Your task to perform on an android device: open app "Google Keep" (install if not already installed) Image 0: 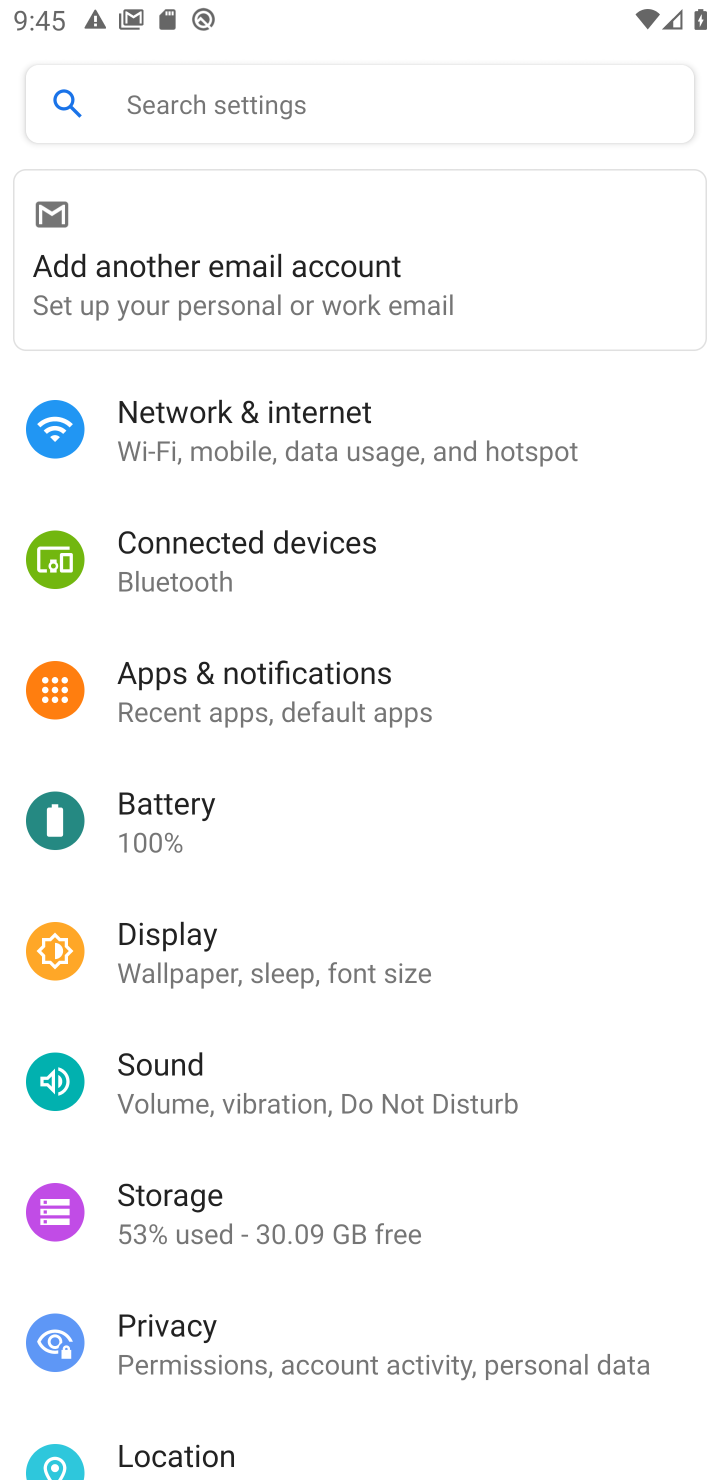
Step 0: press home button
Your task to perform on an android device: open app "Google Keep" (install if not already installed) Image 1: 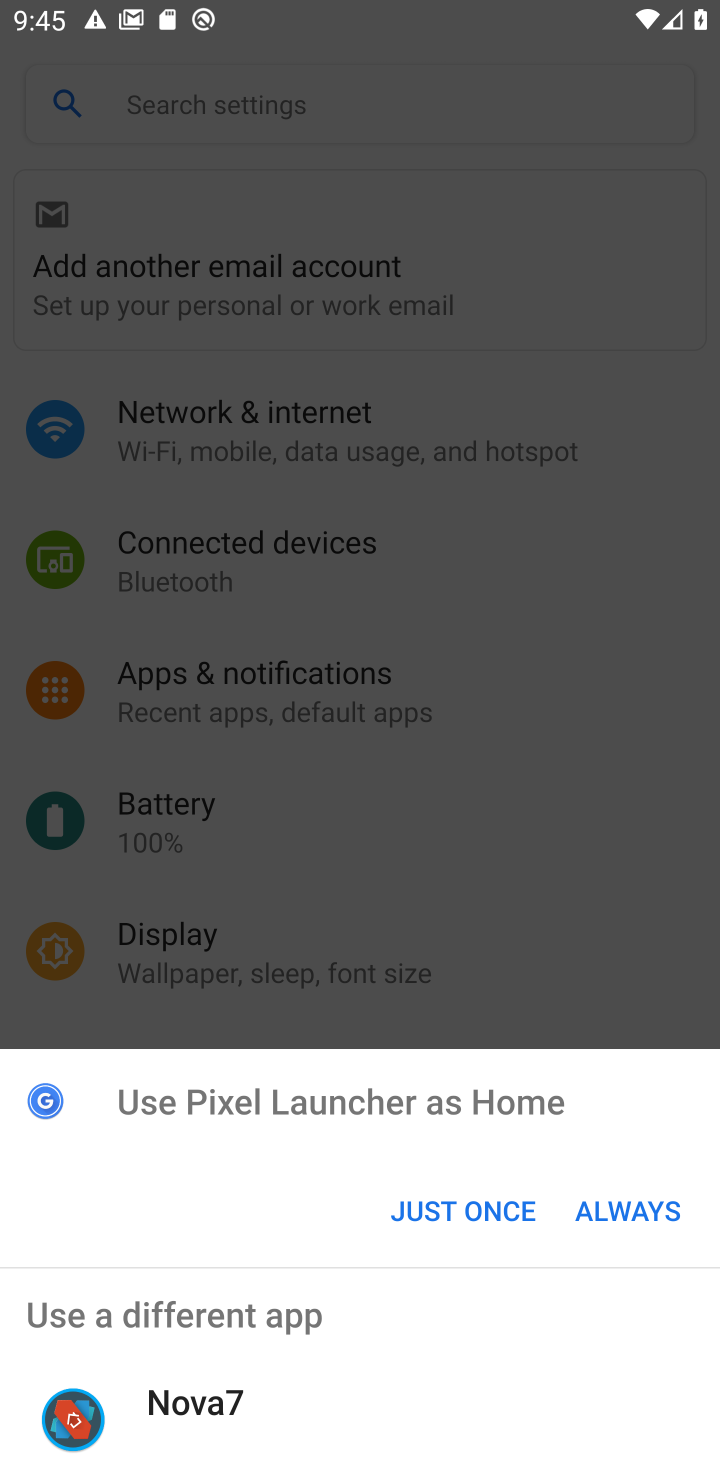
Step 1: click (479, 1212)
Your task to perform on an android device: open app "Google Keep" (install if not already installed) Image 2: 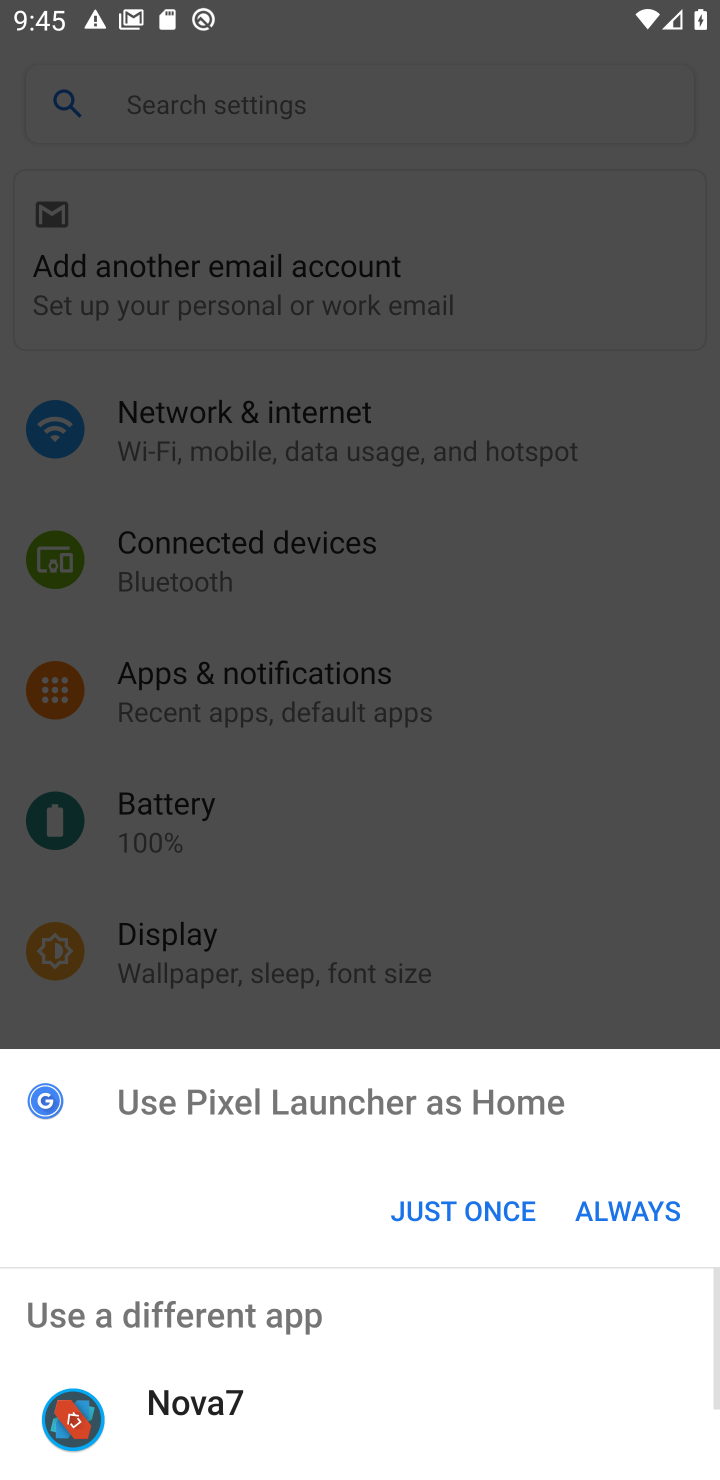
Step 2: press home button
Your task to perform on an android device: open app "Google Keep" (install if not already installed) Image 3: 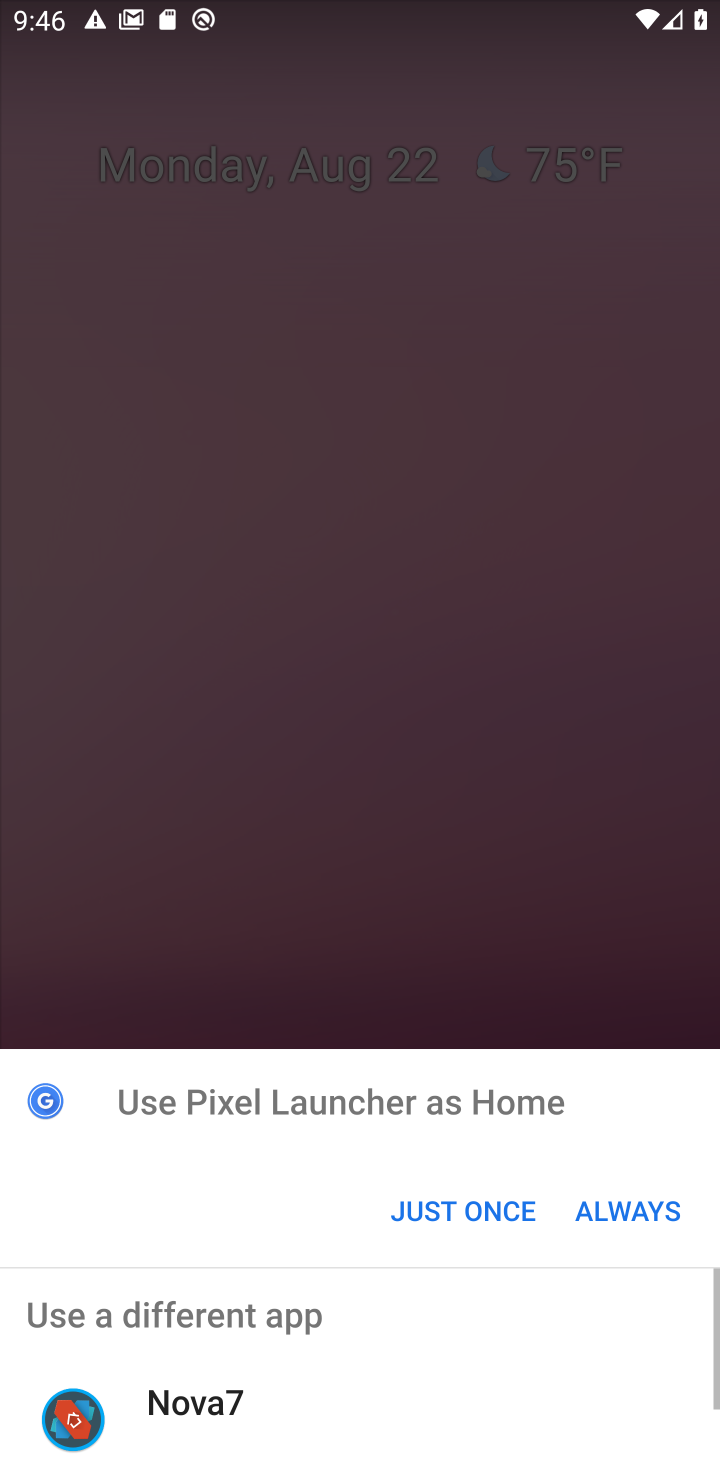
Step 3: click (644, 1204)
Your task to perform on an android device: open app "Google Keep" (install if not already installed) Image 4: 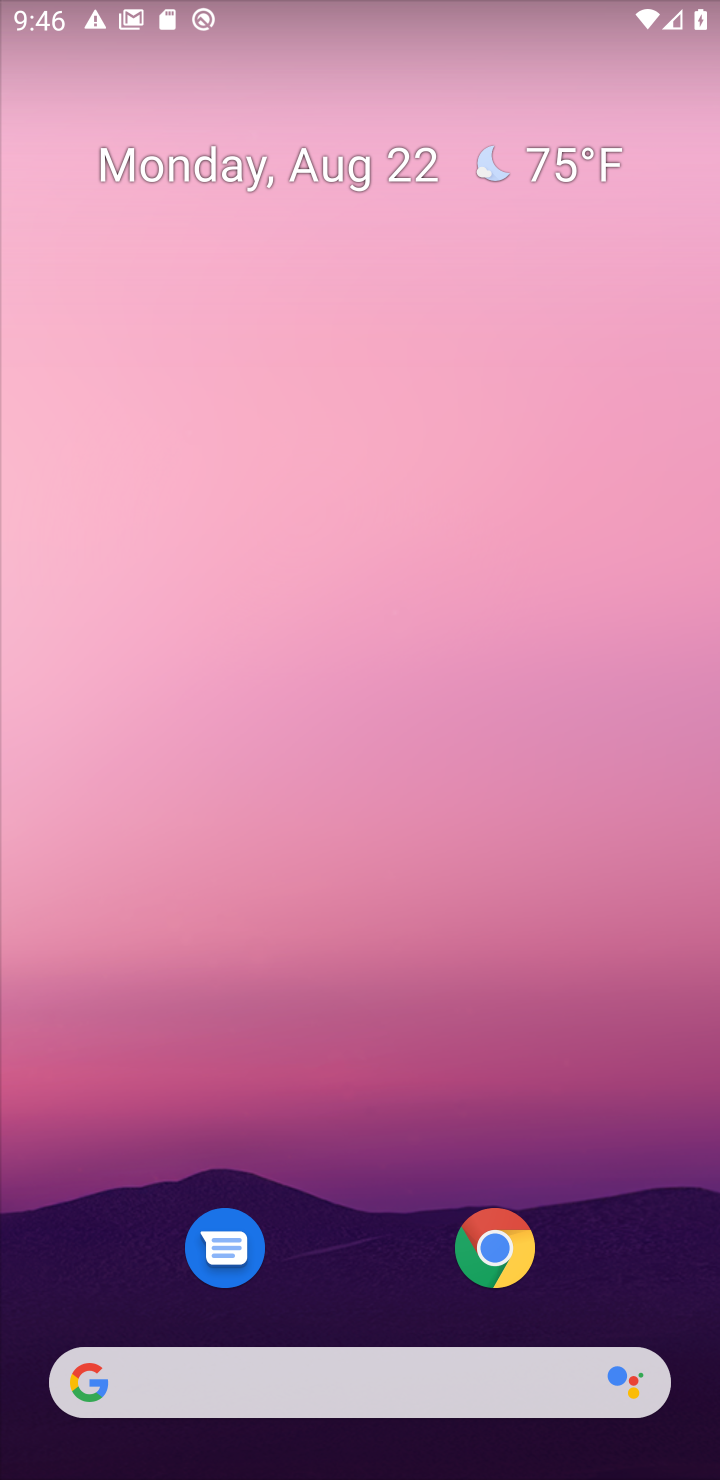
Step 4: press home button
Your task to perform on an android device: open app "Google Keep" (install if not already installed) Image 5: 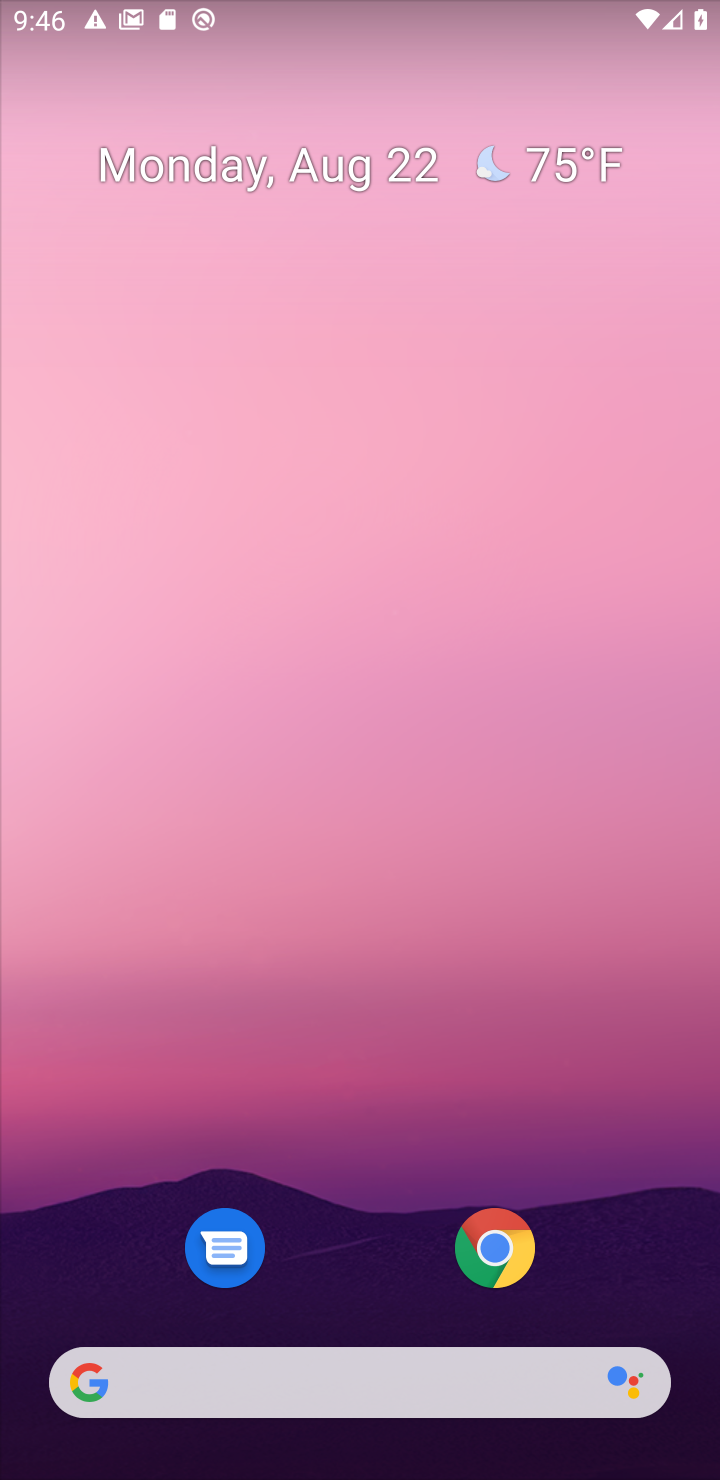
Step 5: drag from (322, 517) to (322, 220)
Your task to perform on an android device: open app "Google Keep" (install if not already installed) Image 6: 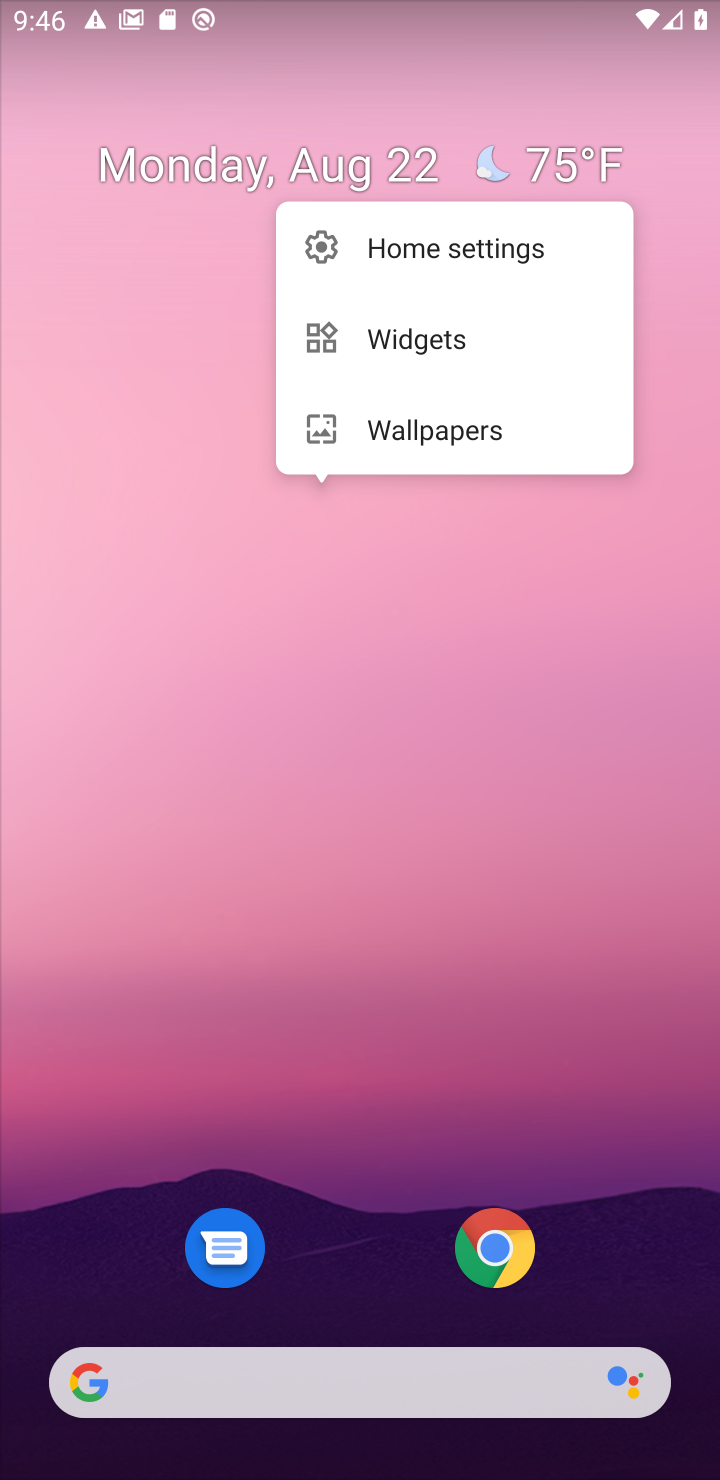
Step 6: click (462, 868)
Your task to perform on an android device: open app "Google Keep" (install if not already installed) Image 7: 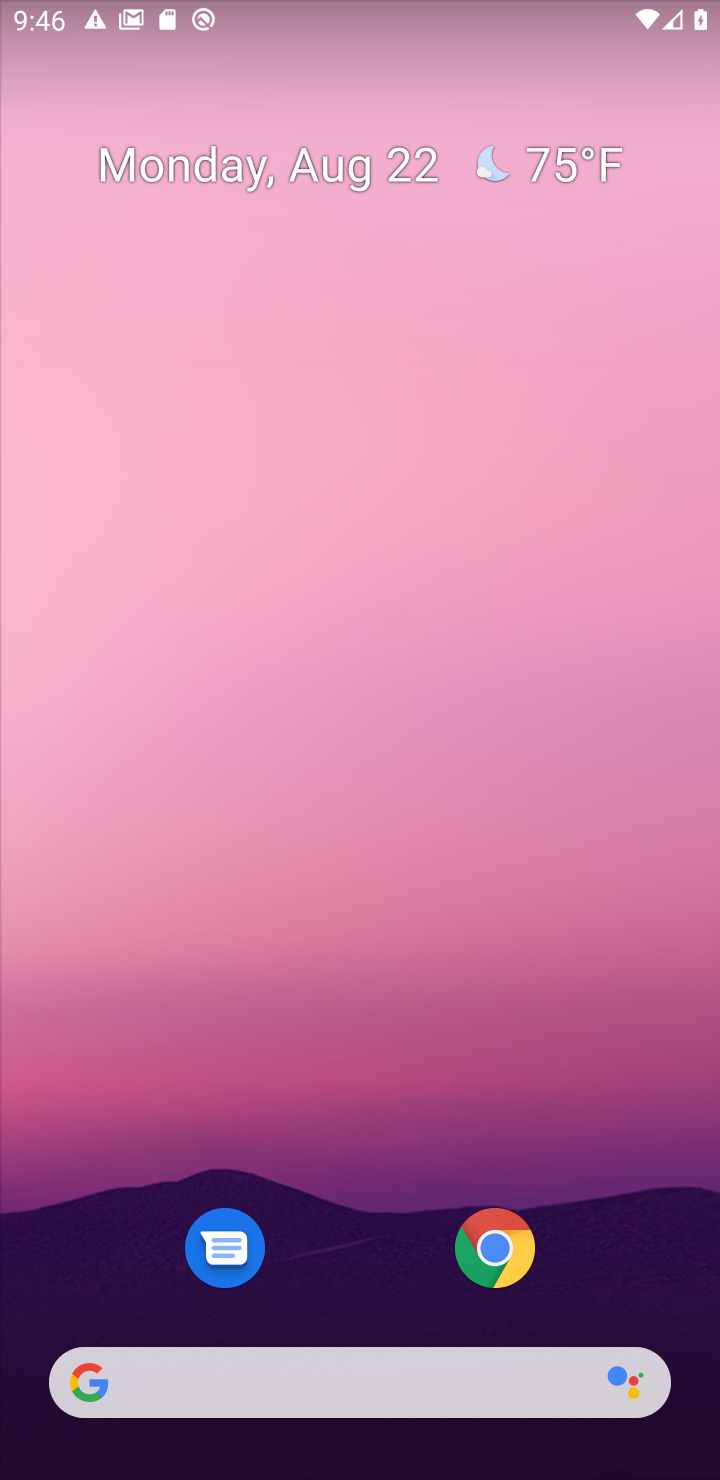
Step 7: drag from (343, 1092) to (336, 119)
Your task to perform on an android device: open app "Google Keep" (install if not already installed) Image 8: 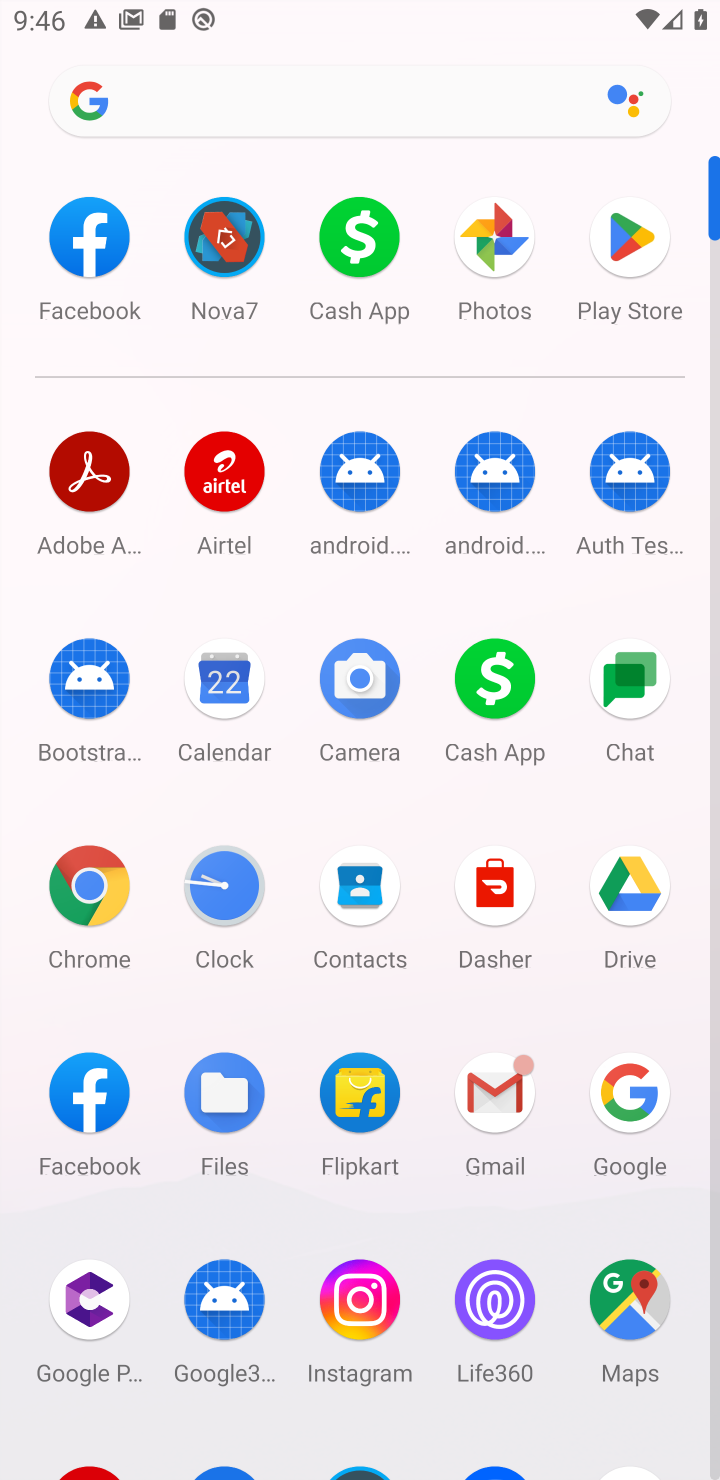
Step 8: click (627, 242)
Your task to perform on an android device: open app "Google Keep" (install if not already installed) Image 9: 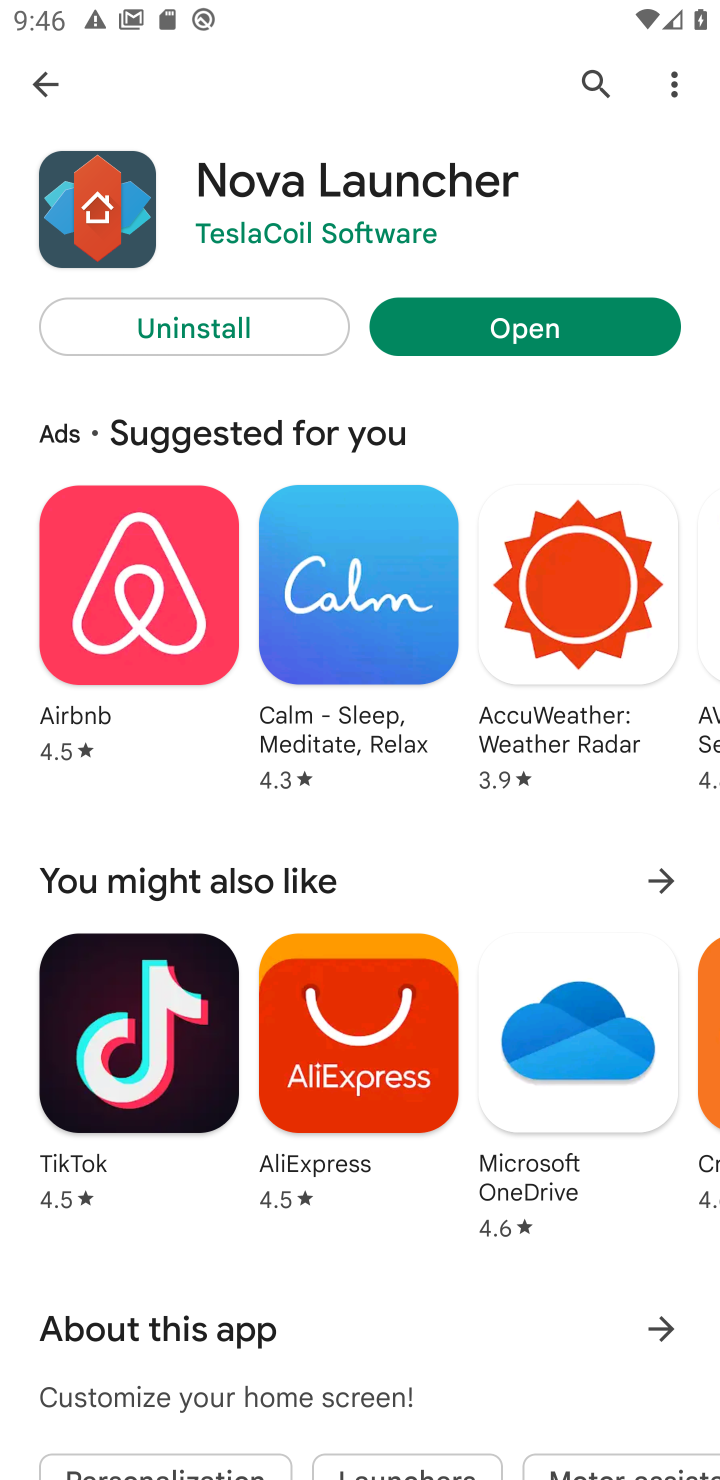
Step 9: click (589, 79)
Your task to perform on an android device: open app "Google Keep" (install if not already installed) Image 10: 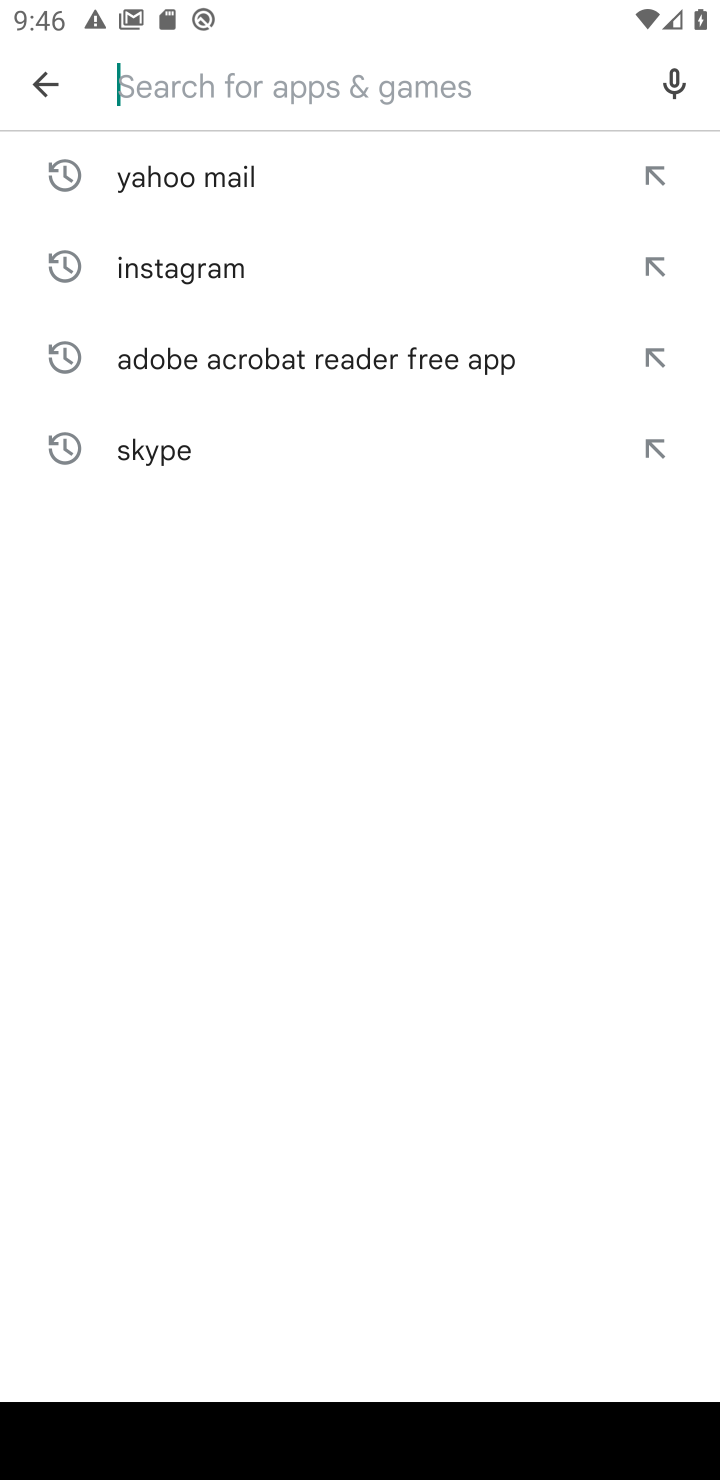
Step 10: type "Google Keep"
Your task to perform on an android device: open app "Google Keep" (install if not already installed) Image 11: 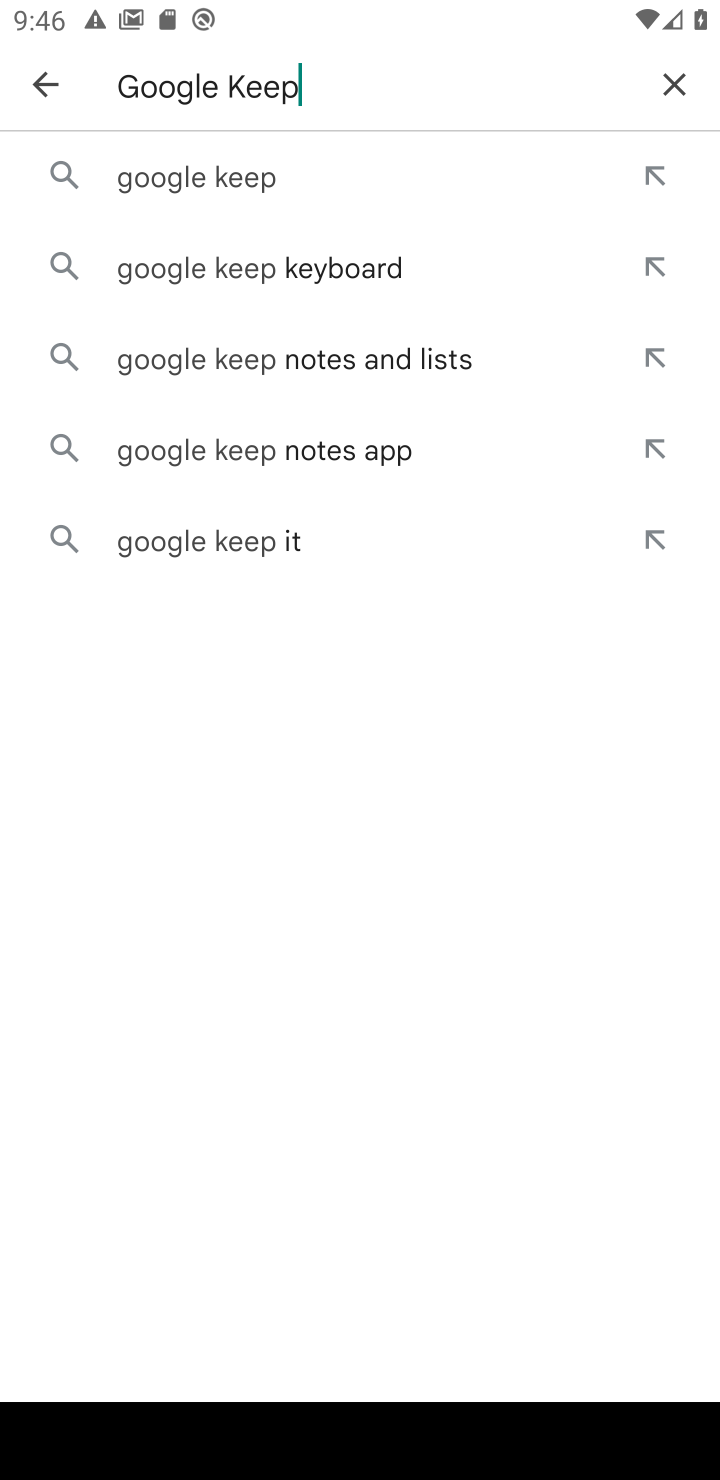
Step 11: click (165, 171)
Your task to perform on an android device: open app "Google Keep" (install if not already installed) Image 12: 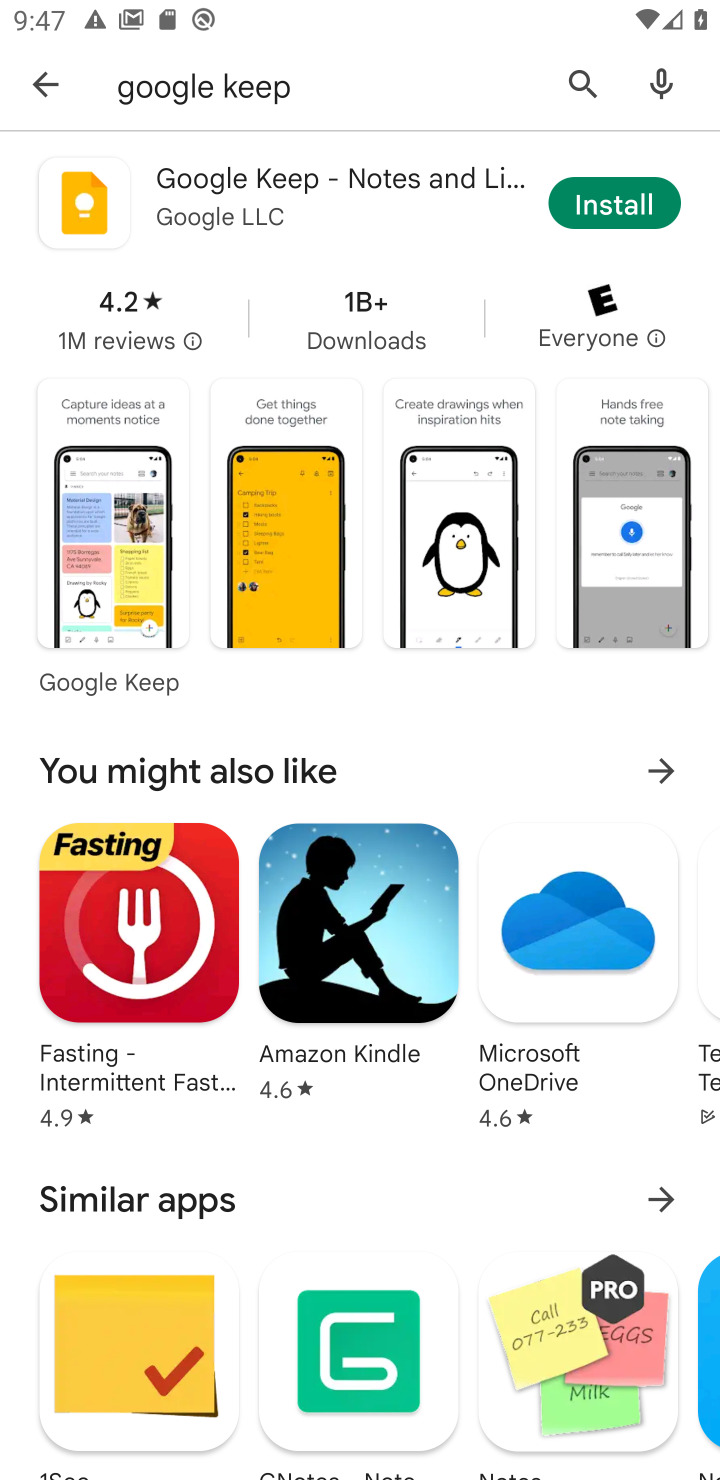
Step 12: click (628, 199)
Your task to perform on an android device: open app "Google Keep" (install if not already installed) Image 13: 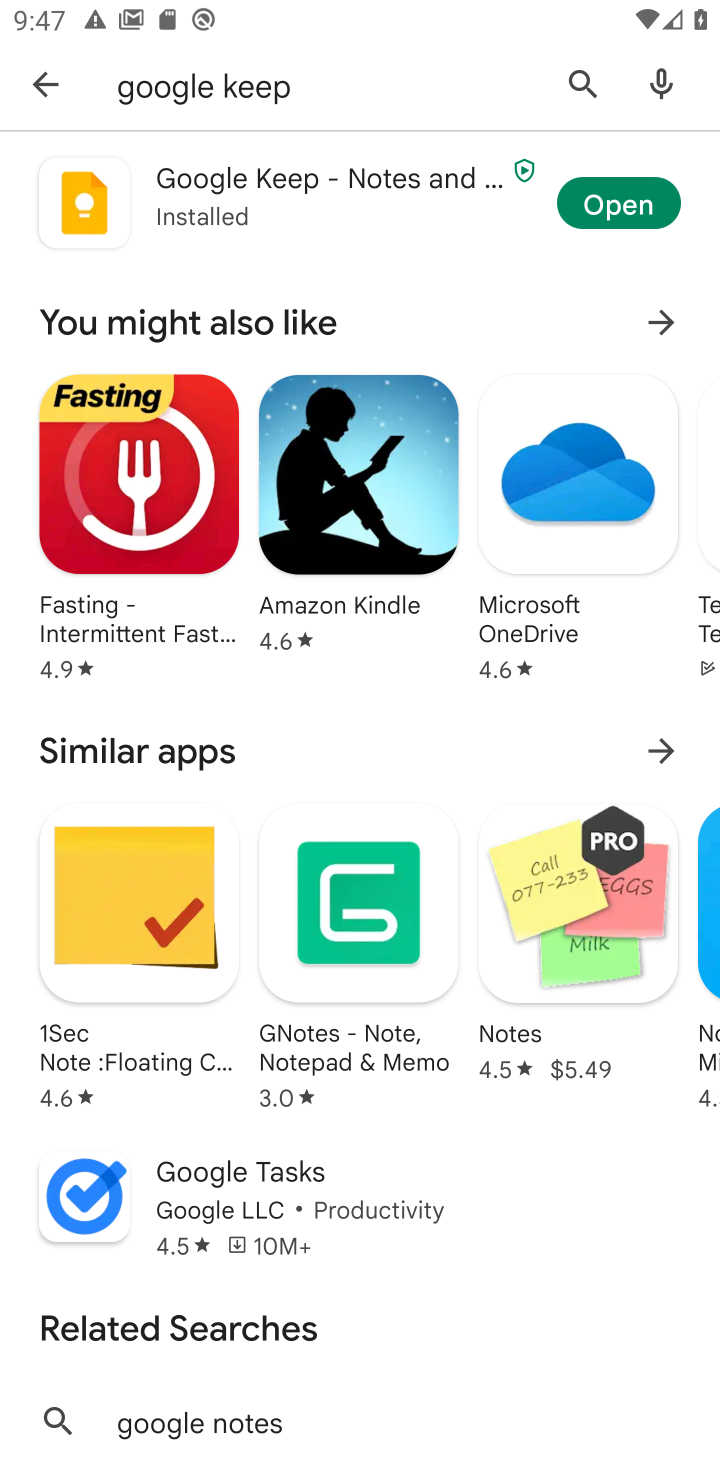
Step 13: click (614, 223)
Your task to perform on an android device: open app "Google Keep" (install if not already installed) Image 14: 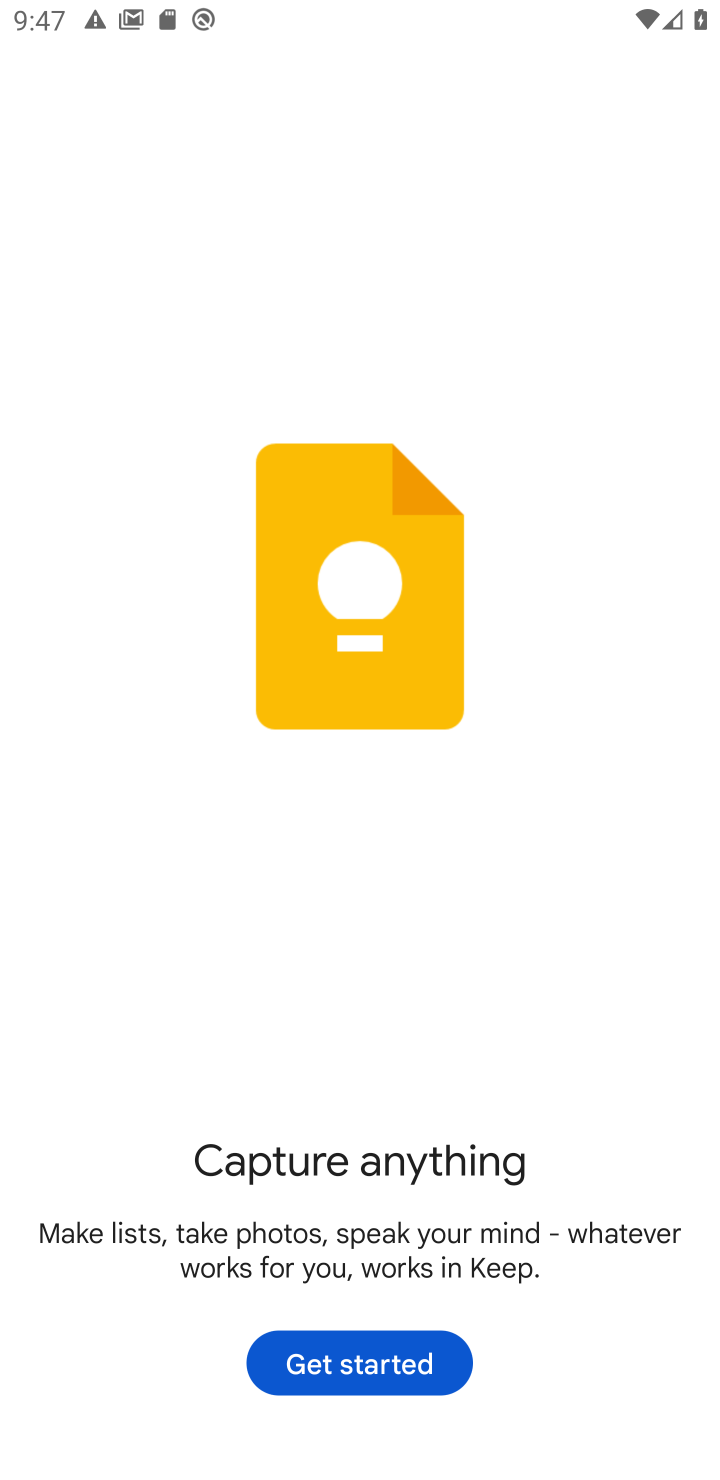
Step 14: task complete